Your task to perform on an android device: Is it going to rain today? Image 0: 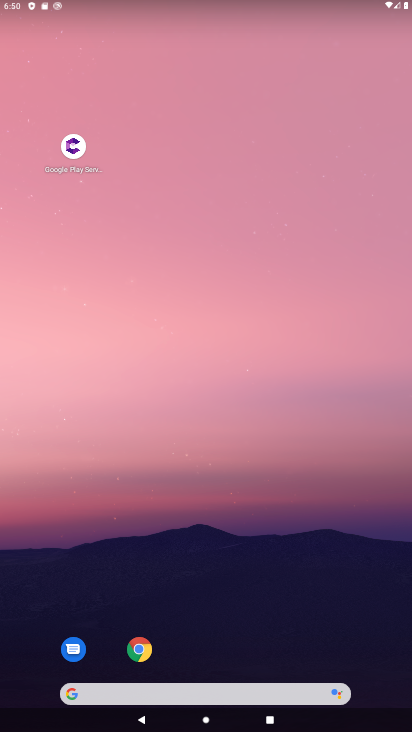
Step 0: click (225, 696)
Your task to perform on an android device: Is it going to rain today? Image 1: 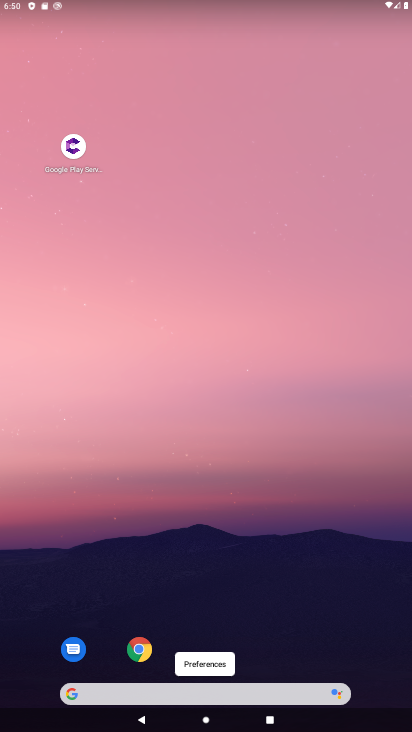
Step 1: click (209, 692)
Your task to perform on an android device: Is it going to rain today? Image 2: 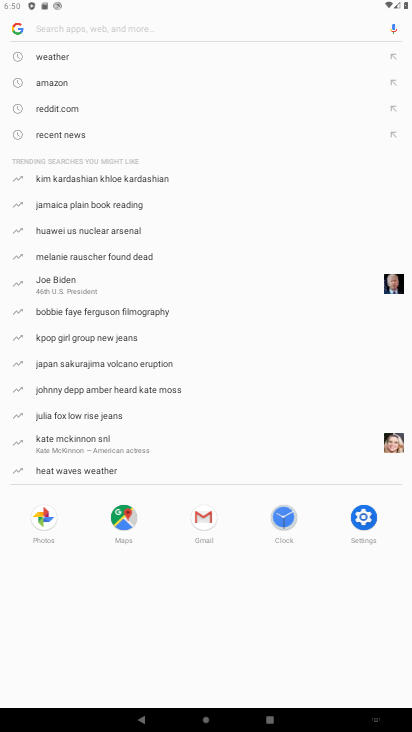
Step 2: click (146, 28)
Your task to perform on an android device: Is it going to rain today? Image 3: 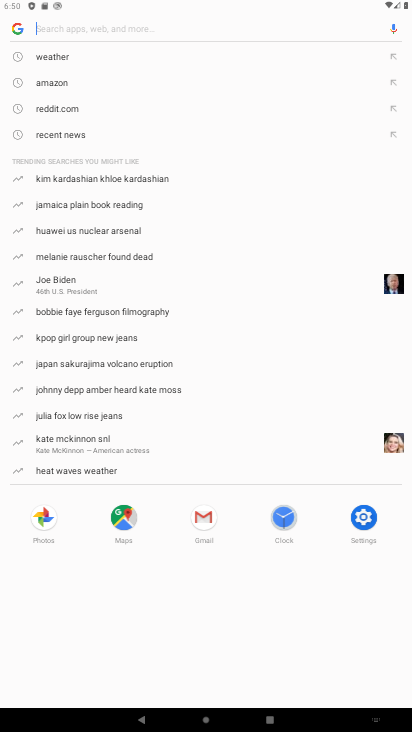
Step 3: click (362, 720)
Your task to perform on an android device: Is it going to rain today? Image 4: 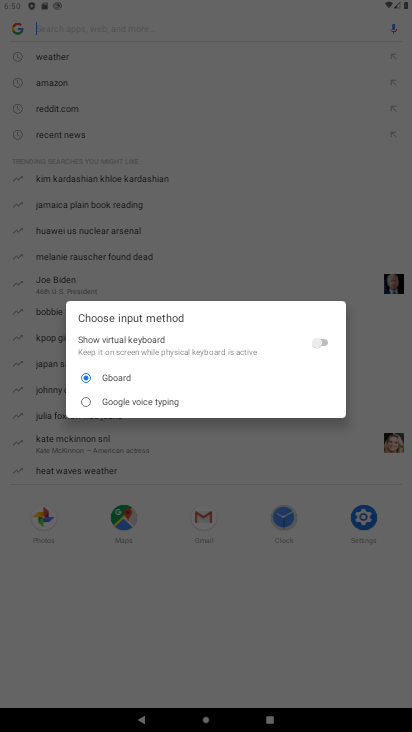
Step 4: drag from (372, 722) to (275, 313)
Your task to perform on an android device: Is it going to rain today? Image 5: 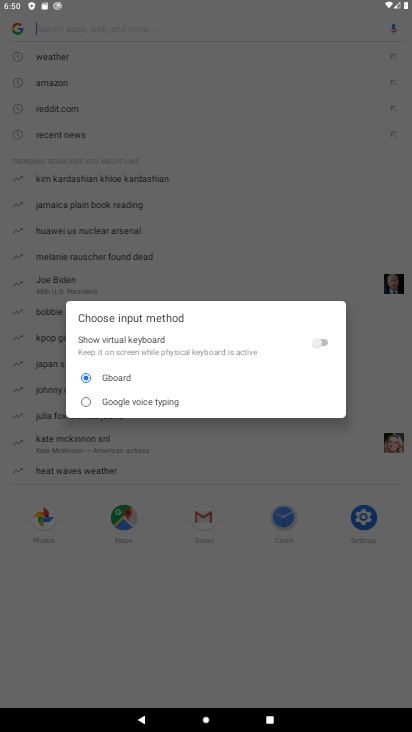
Step 5: click (325, 339)
Your task to perform on an android device: Is it going to rain today? Image 6: 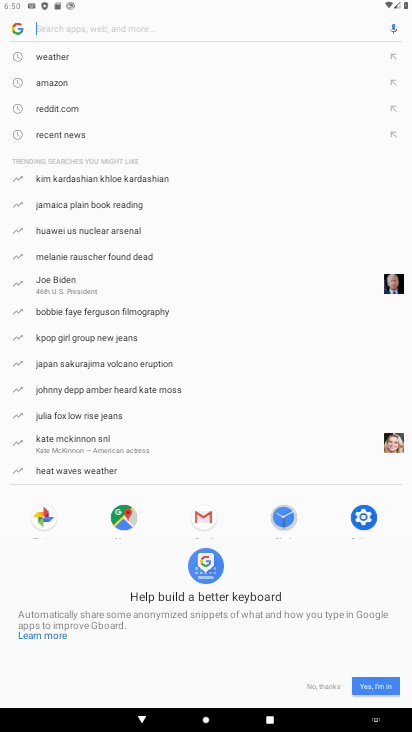
Step 6: click (316, 686)
Your task to perform on an android device: Is it going to rain today? Image 7: 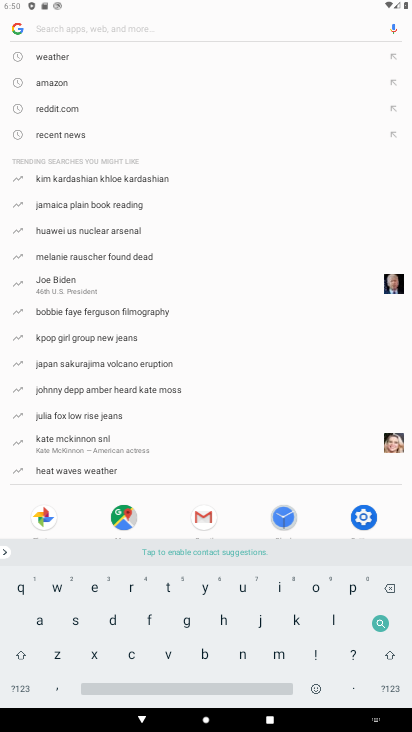
Step 7: click (277, 583)
Your task to perform on an android device: Is it going to rain today? Image 8: 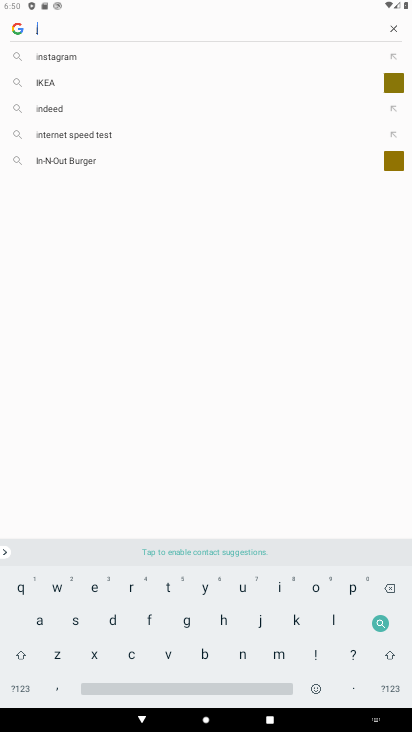
Step 8: click (73, 619)
Your task to perform on an android device: Is it going to rain today? Image 9: 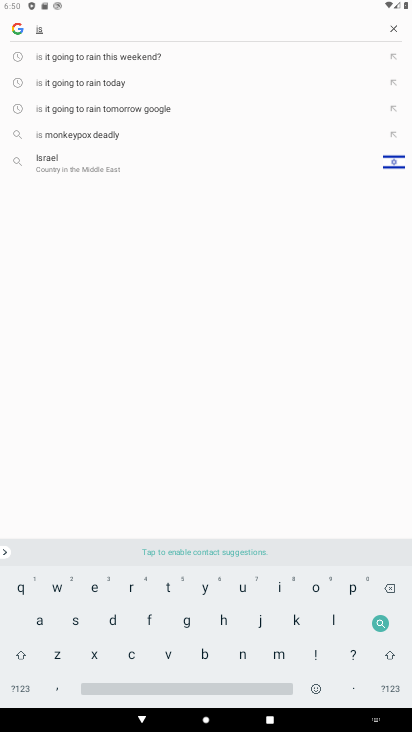
Step 9: click (110, 78)
Your task to perform on an android device: Is it going to rain today? Image 10: 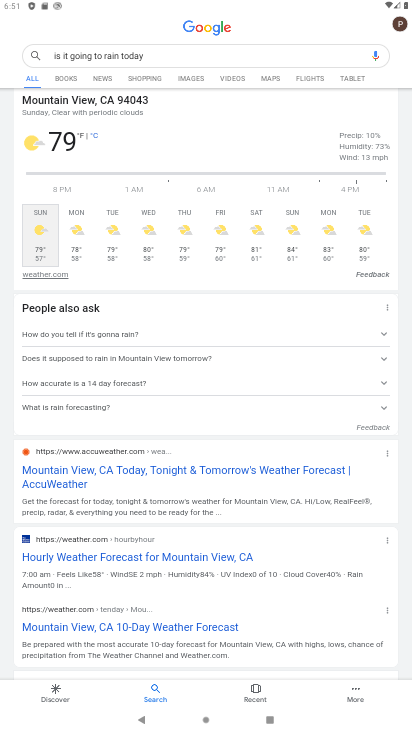
Step 10: task complete